Your task to perform on an android device: toggle sleep mode Image 0: 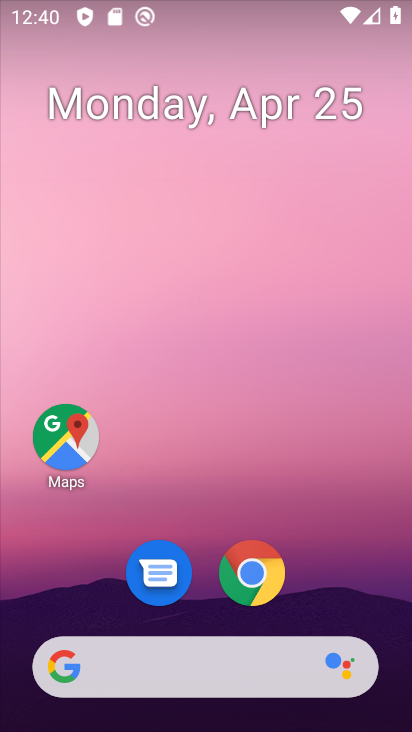
Step 0: drag from (226, 447) to (241, 0)
Your task to perform on an android device: toggle sleep mode Image 1: 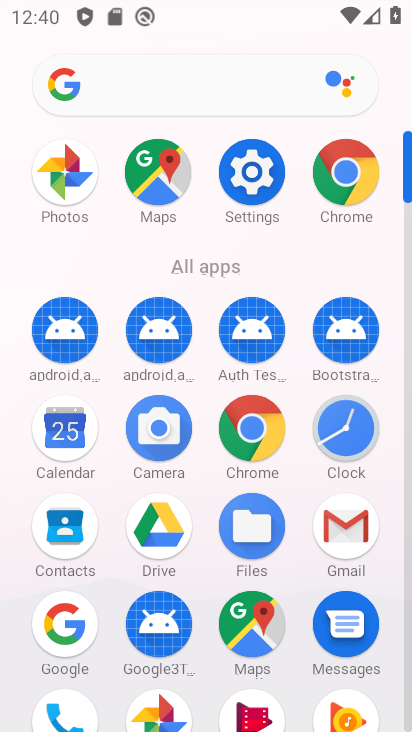
Step 1: click (254, 193)
Your task to perform on an android device: toggle sleep mode Image 2: 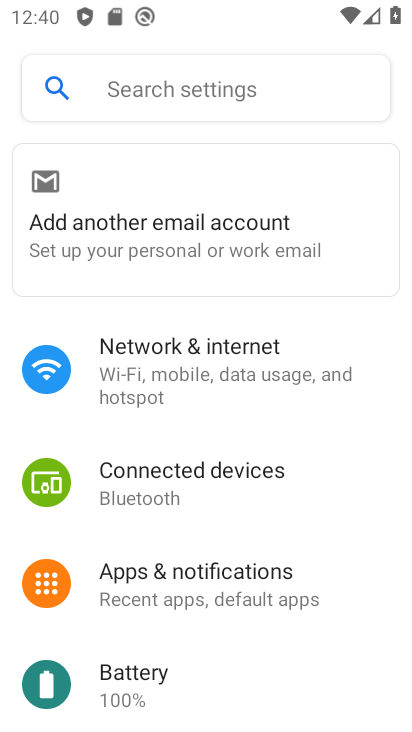
Step 2: drag from (216, 644) to (248, 249)
Your task to perform on an android device: toggle sleep mode Image 3: 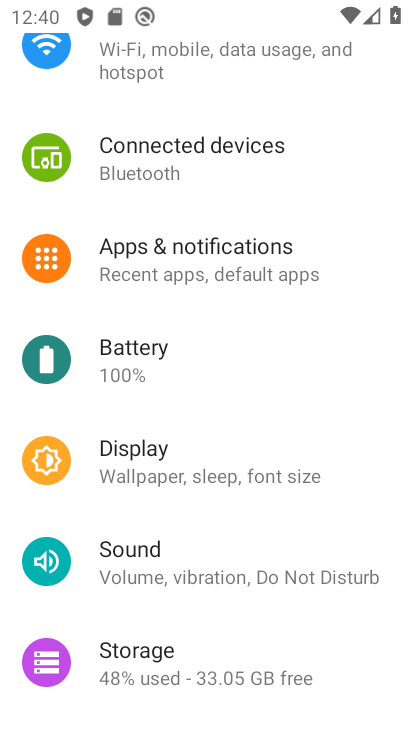
Step 3: click (199, 470)
Your task to perform on an android device: toggle sleep mode Image 4: 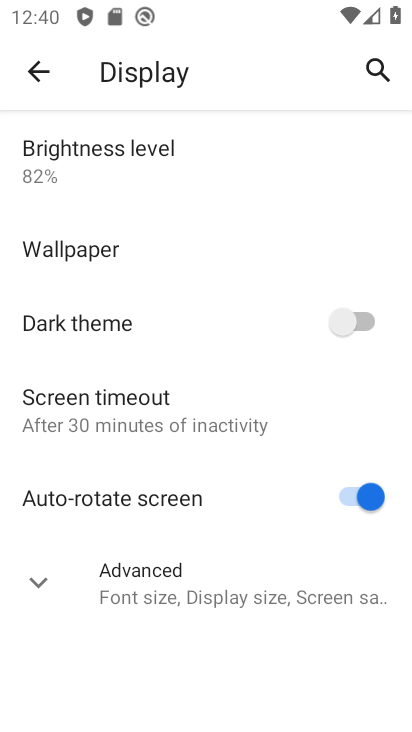
Step 4: click (125, 586)
Your task to perform on an android device: toggle sleep mode Image 5: 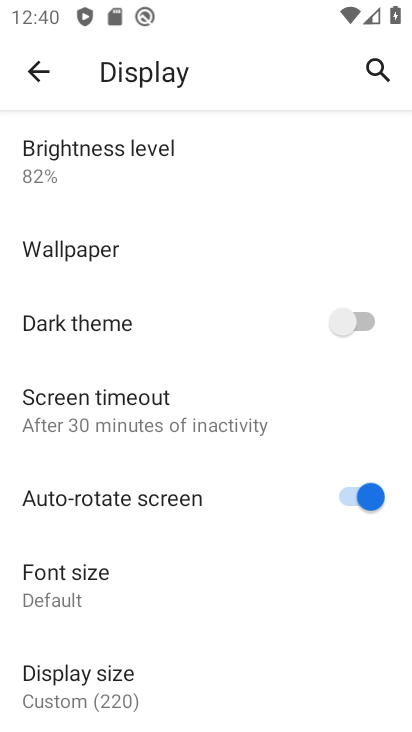
Step 5: drag from (224, 672) to (237, 155)
Your task to perform on an android device: toggle sleep mode Image 6: 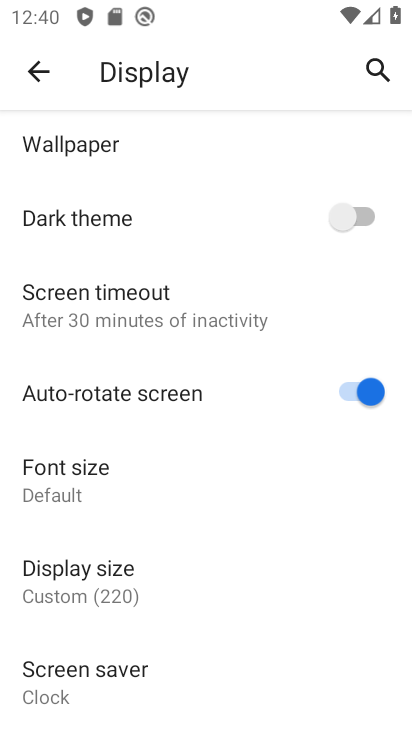
Step 6: click (213, 306)
Your task to perform on an android device: toggle sleep mode Image 7: 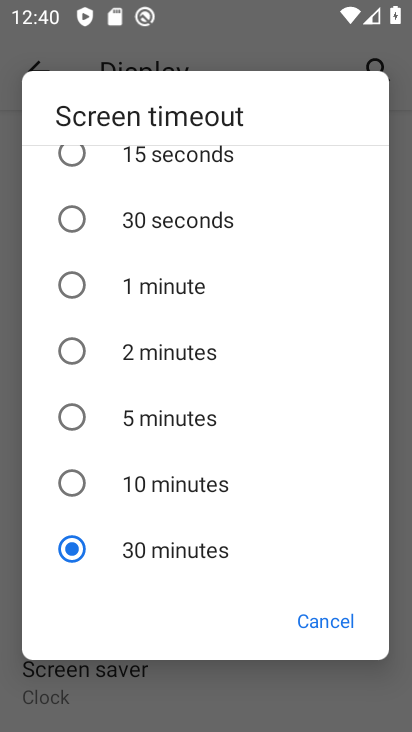
Step 7: click (170, 223)
Your task to perform on an android device: toggle sleep mode Image 8: 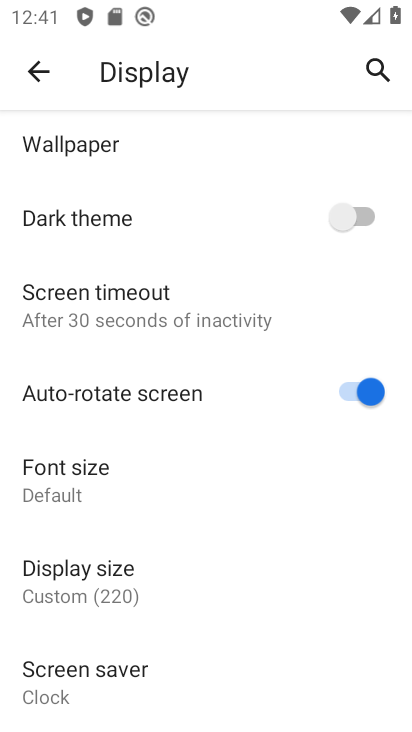
Step 8: task complete